Your task to perform on an android device: Clear all items from cart on bestbuy. Add sony triple a to the cart on bestbuy Image 0: 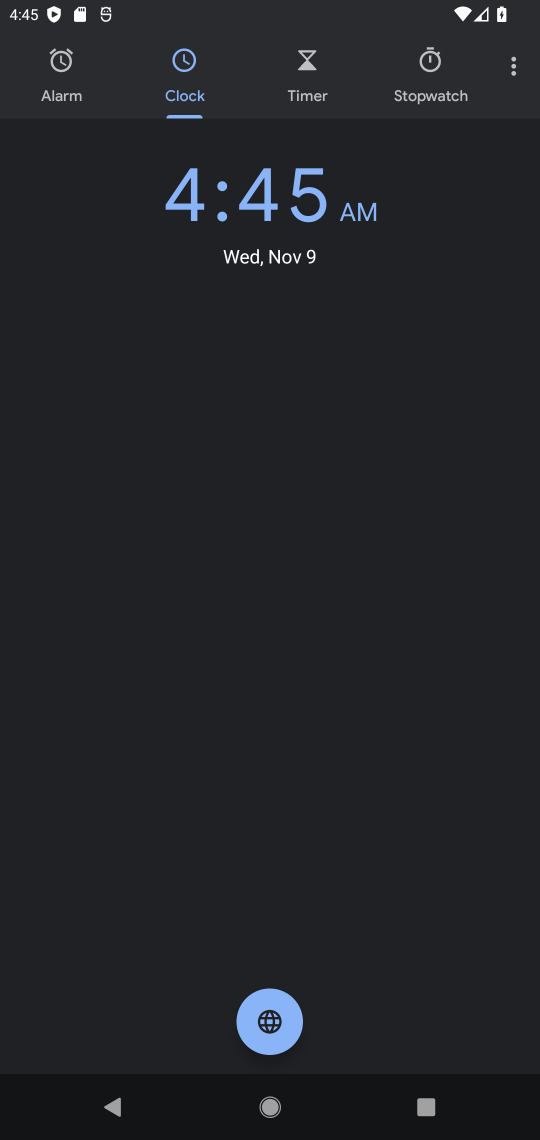
Step 0: press home button
Your task to perform on an android device: Clear all items from cart on bestbuy. Add sony triple a to the cart on bestbuy Image 1: 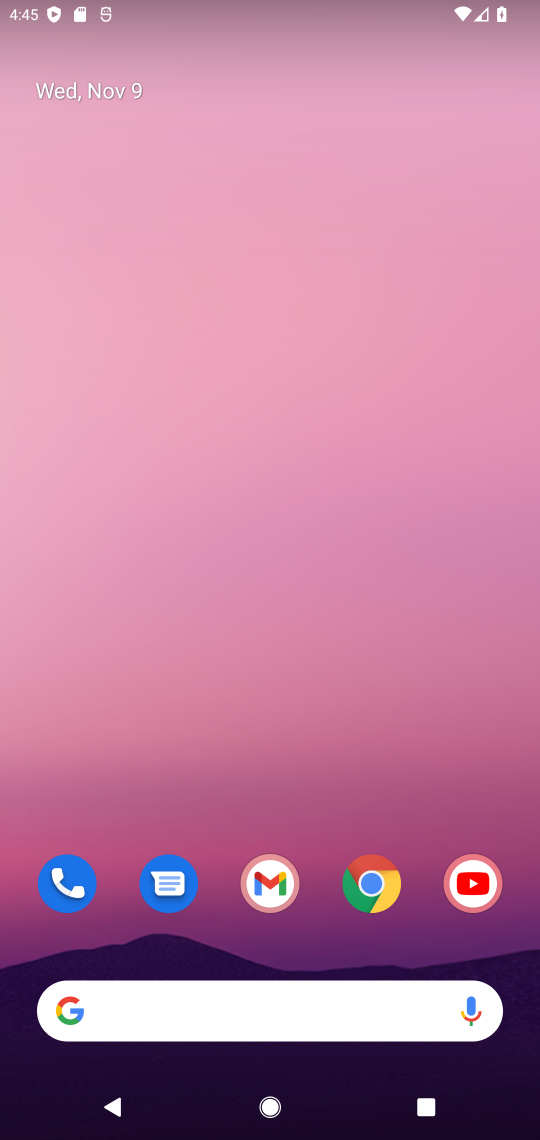
Step 1: click (395, 888)
Your task to perform on an android device: Clear all items from cart on bestbuy. Add sony triple a to the cart on bestbuy Image 2: 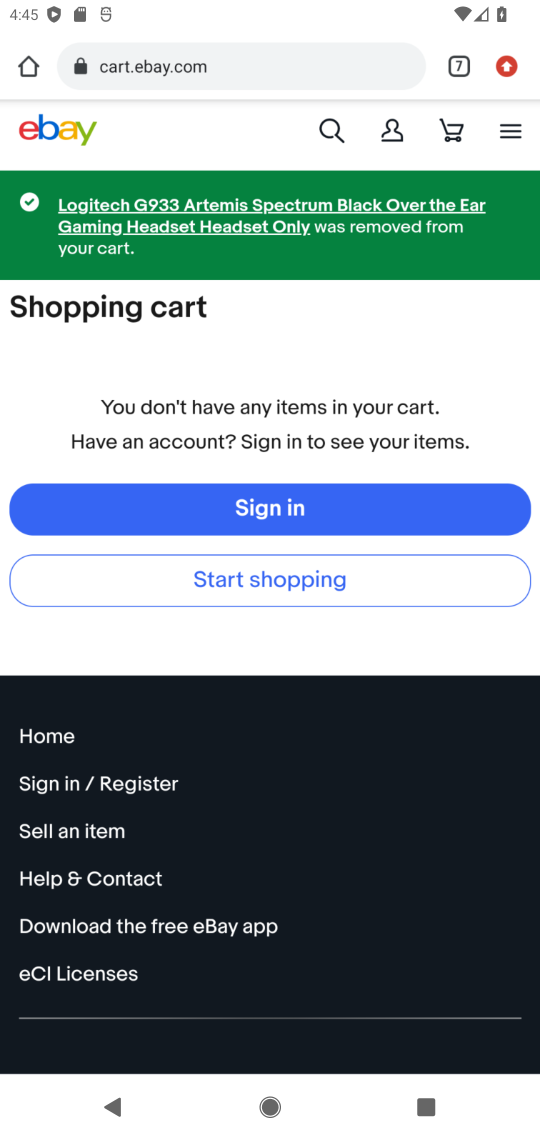
Step 2: click (395, 888)
Your task to perform on an android device: Clear all items from cart on bestbuy. Add sony triple a to the cart on bestbuy Image 3: 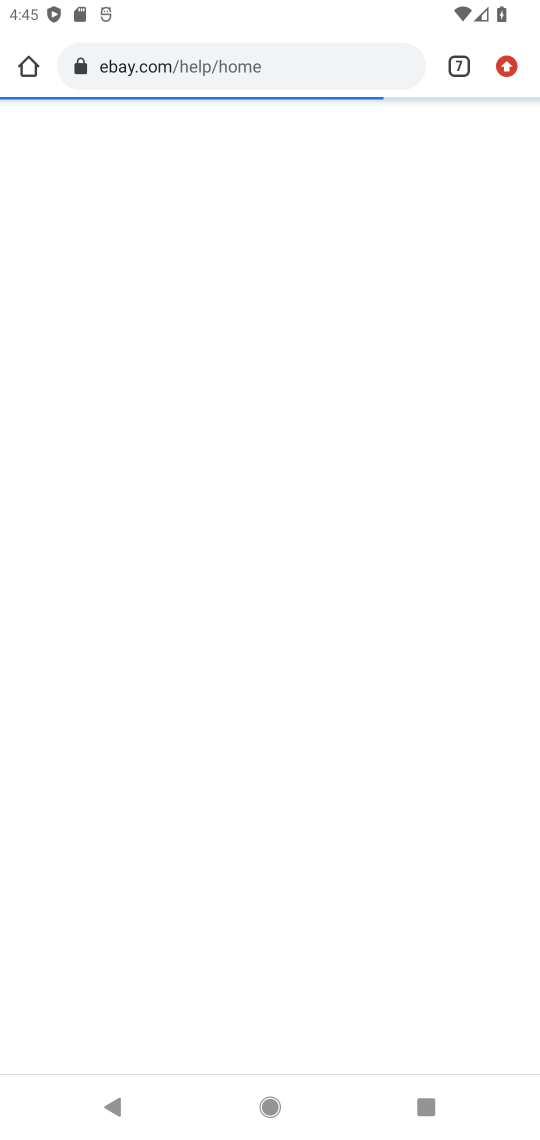
Step 3: click (455, 68)
Your task to perform on an android device: Clear all items from cart on bestbuy. Add sony triple a to the cart on bestbuy Image 4: 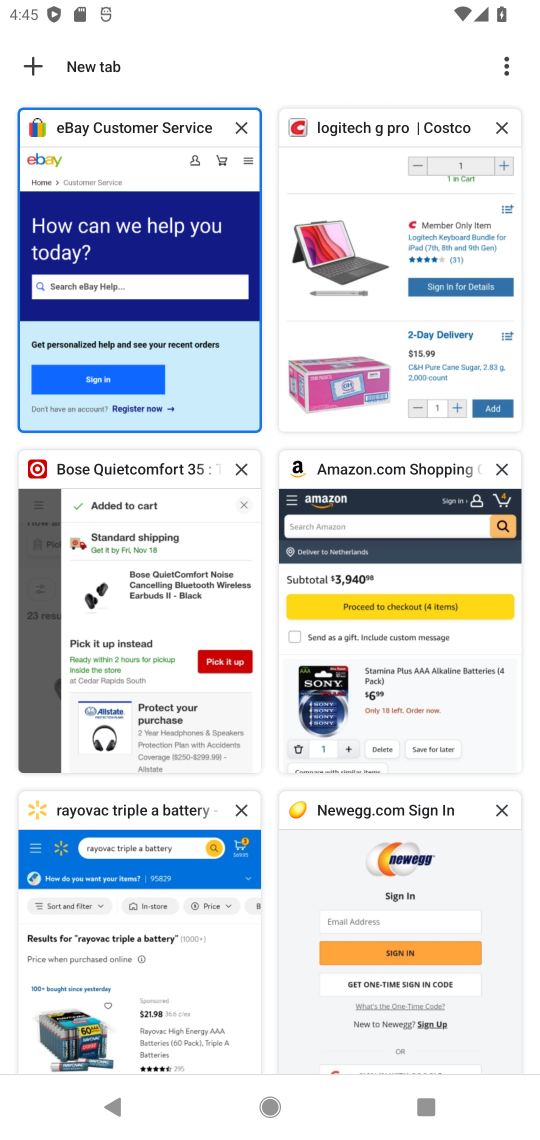
Step 4: drag from (302, 821) to (359, 187)
Your task to perform on an android device: Clear all items from cart on bestbuy. Add sony triple a to the cart on bestbuy Image 5: 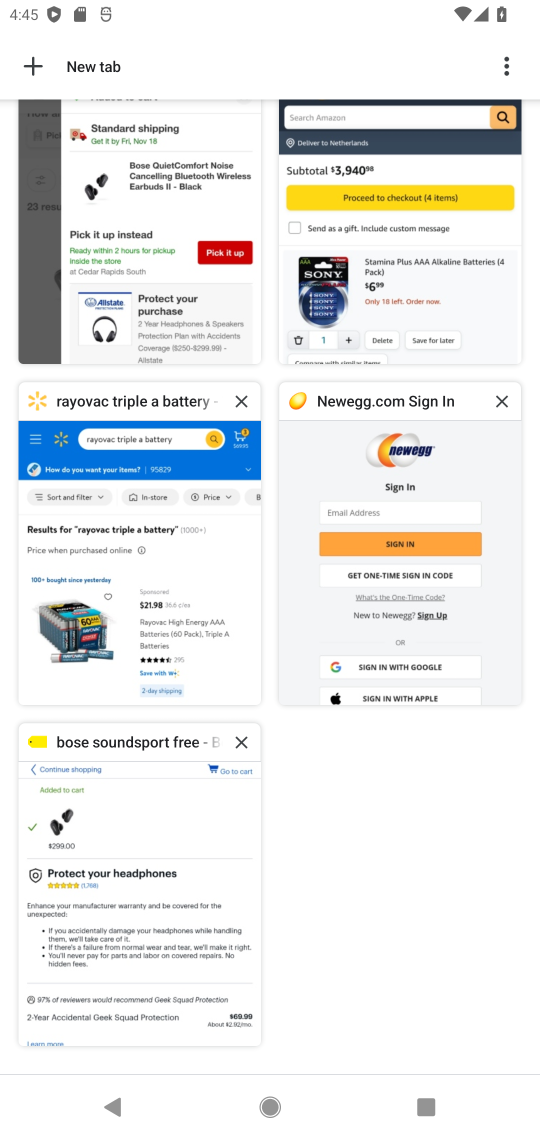
Step 5: click (143, 806)
Your task to perform on an android device: Clear all items from cart on bestbuy. Add sony triple a to the cart on bestbuy Image 6: 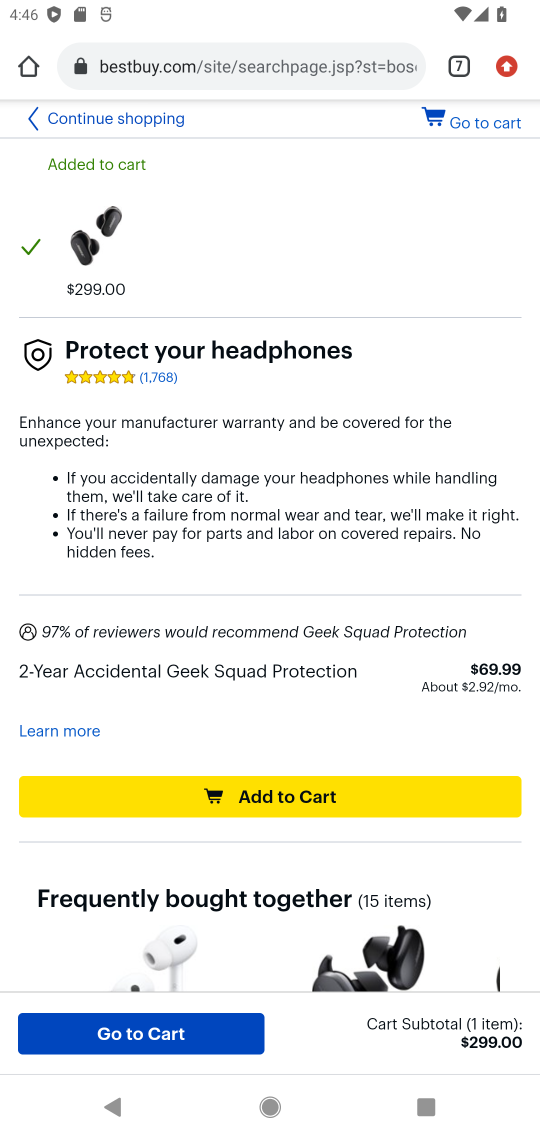
Step 6: click (142, 1029)
Your task to perform on an android device: Clear all items from cart on bestbuy. Add sony triple a to the cart on bestbuy Image 7: 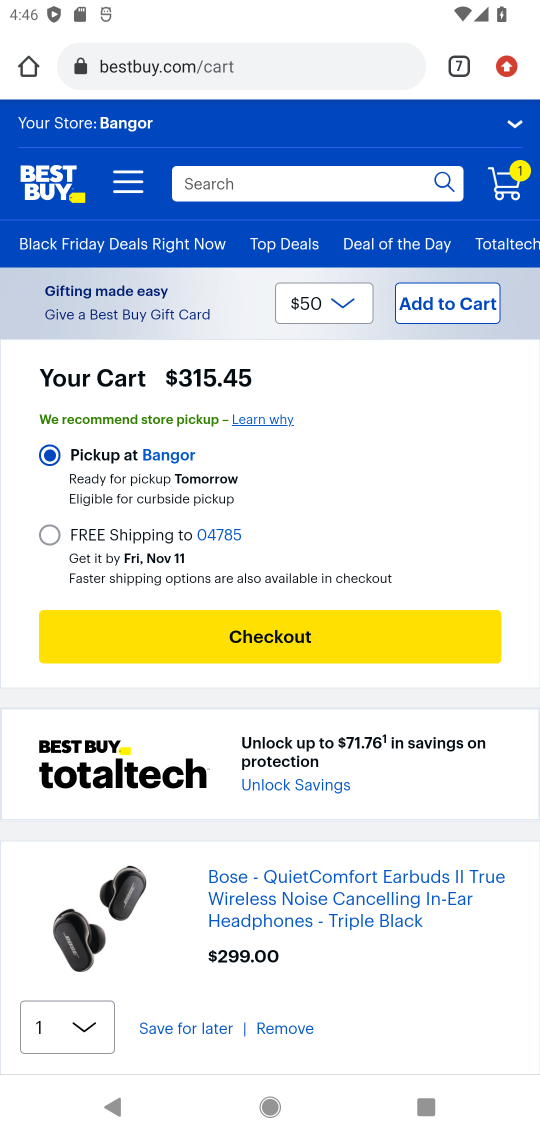
Step 7: click (280, 1024)
Your task to perform on an android device: Clear all items from cart on bestbuy. Add sony triple a to the cart on bestbuy Image 8: 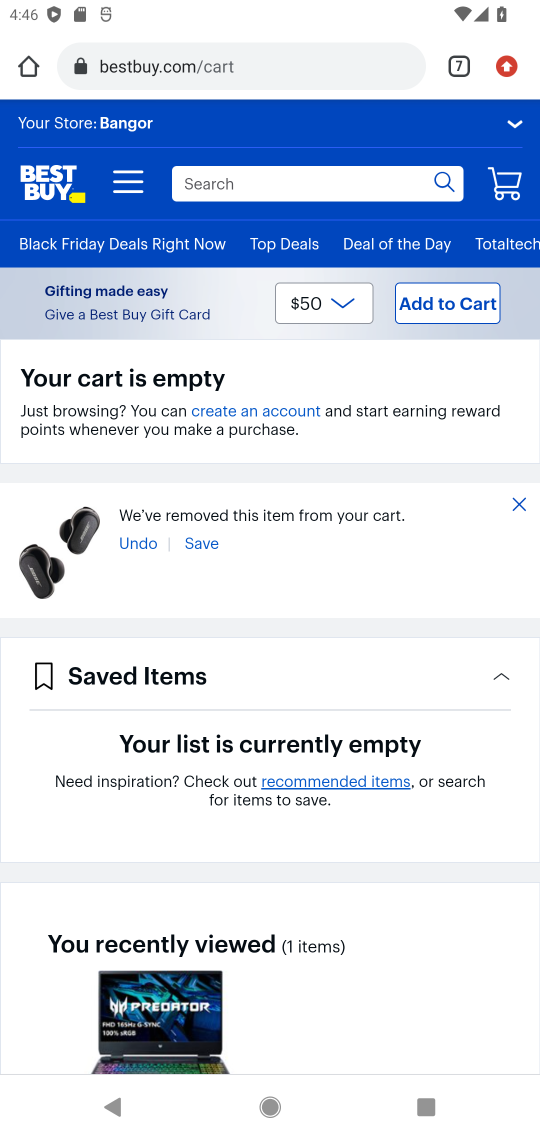
Step 8: click (259, 175)
Your task to perform on an android device: Clear all items from cart on bestbuy. Add sony triple a to the cart on bestbuy Image 9: 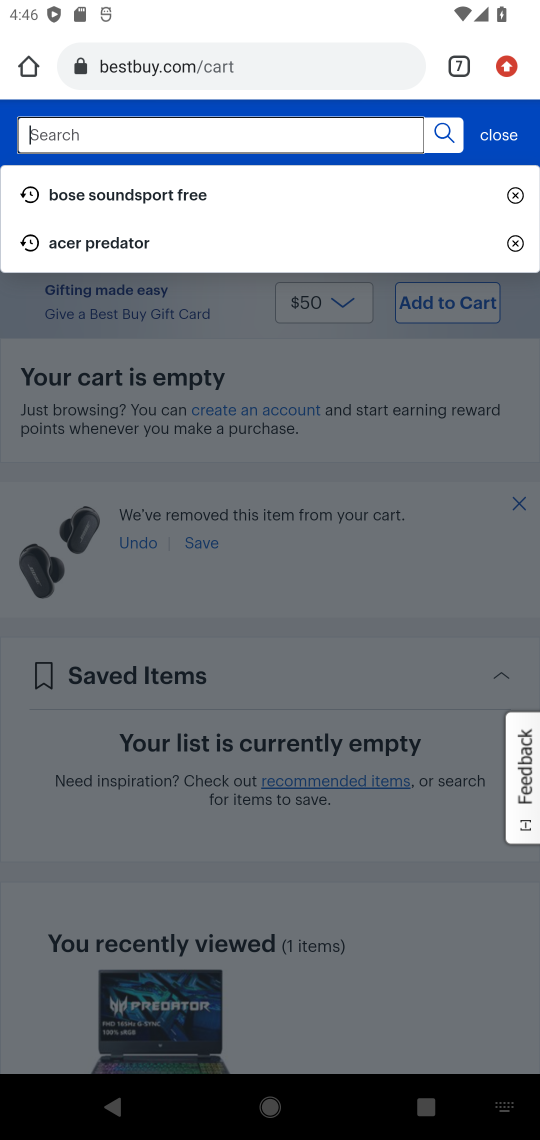
Step 9: type "sony triple a"
Your task to perform on an android device: Clear all items from cart on bestbuy. Add sony triple a to the cart on bestbuy Image 10: 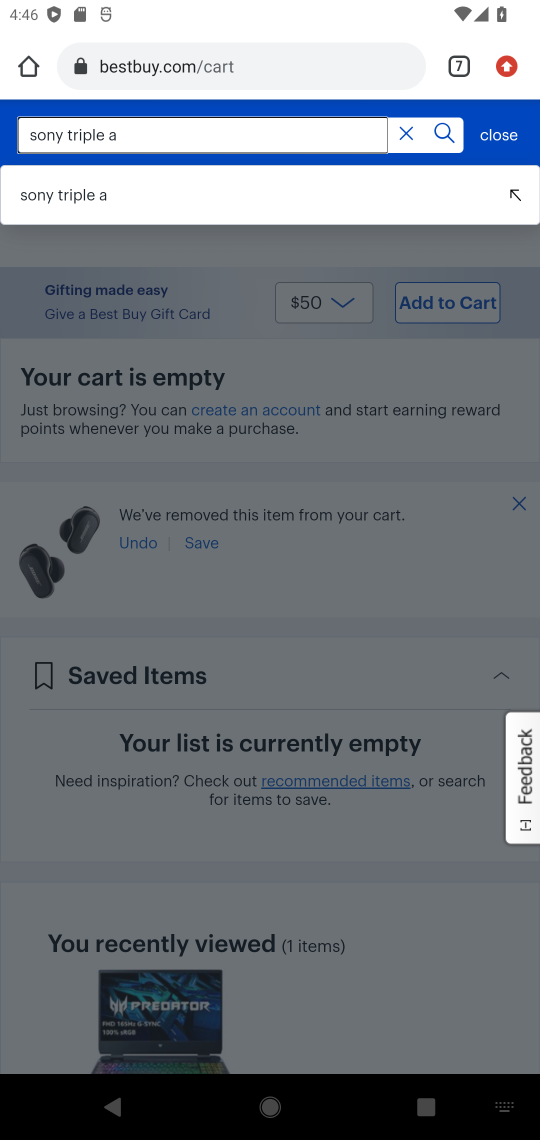
Step 10: click (101, 195)
Your task to perform on an android device: Clear all items from cart on bestbuy. Add sony triple a to the cart on bestbuy Image 11: 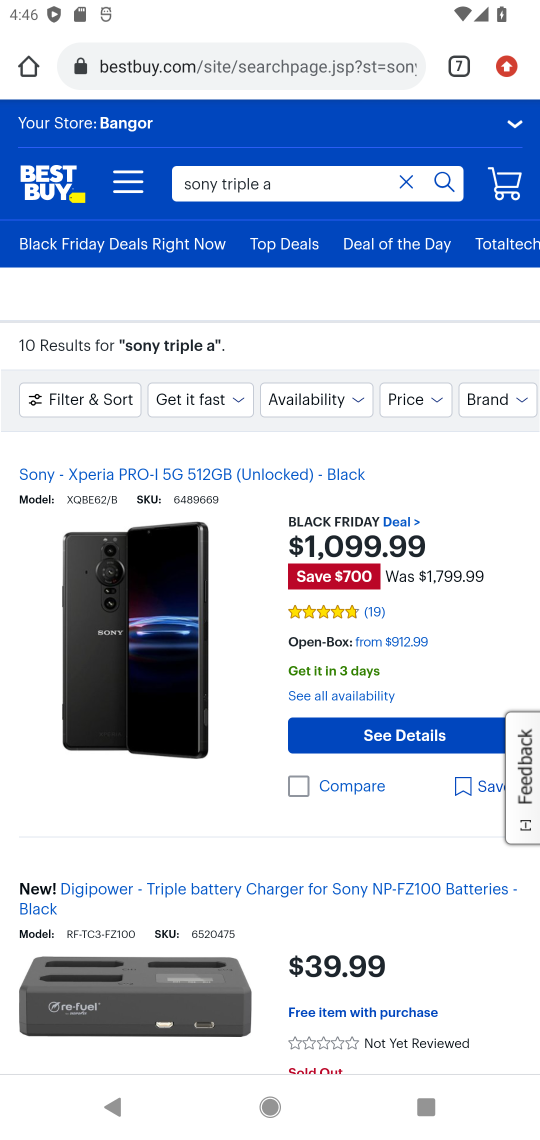
Step 11: task complete